Your task to perform on an android device: Open Reddit.com Image 0: 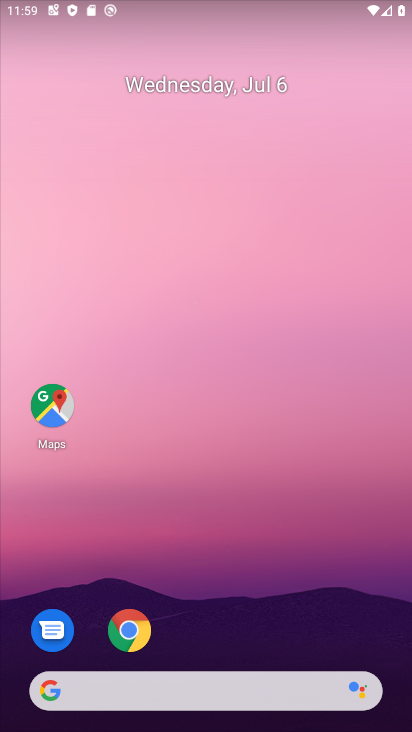
Step 0: click (133, 637)
Your task to perform on an android device: Open Reddit.com Image 1: 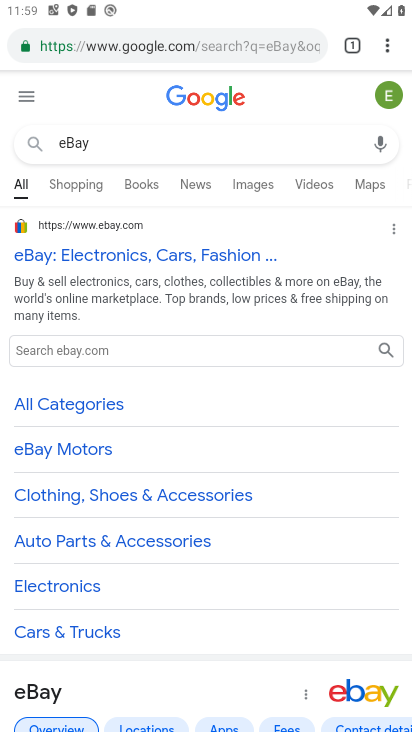
Step 1: click (209, 46)
Your task to perform on an android device: Open Reddit.com Image 2: 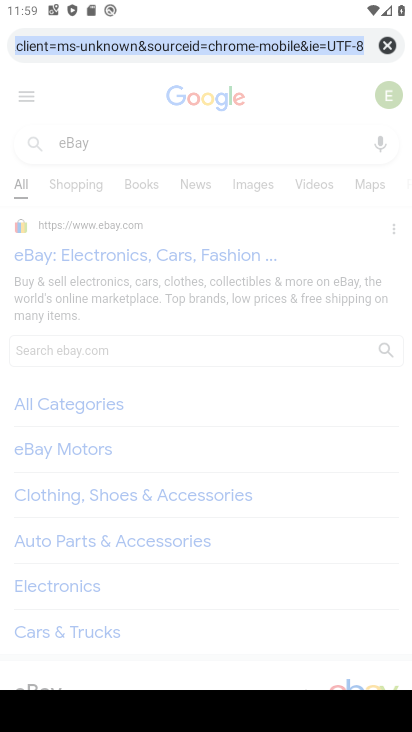
Step 2: type "reddit.com"
Your task to perform on an android device: Open Reddit.com Image 3: 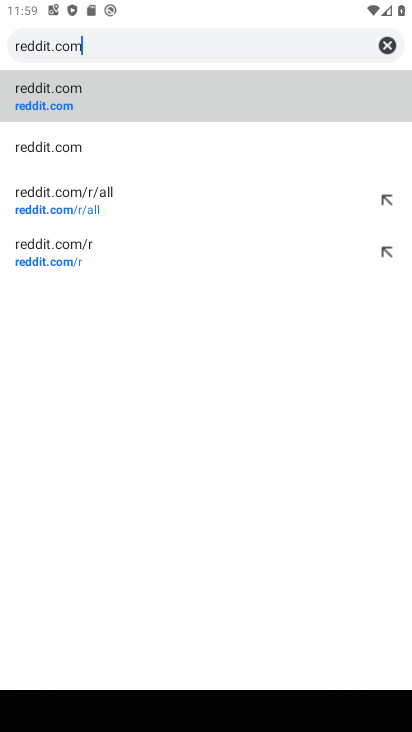
Step 3: click (116, 104)
Your task to perform on an android device: Open Reddit.com Image 4: 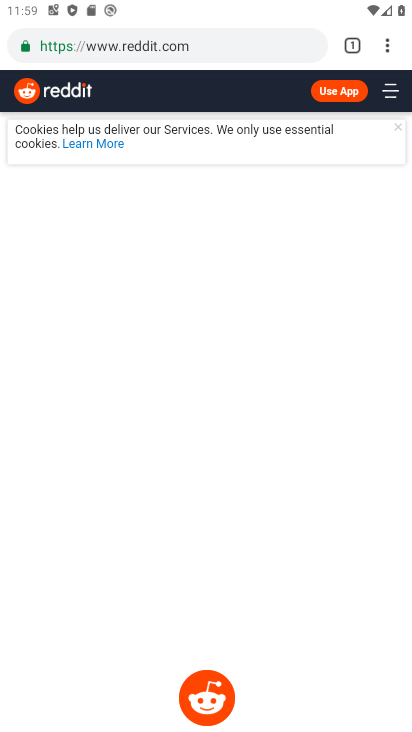
Step 4: task complete